Your task to perform on an android device: When is my next meeting? Image 0: 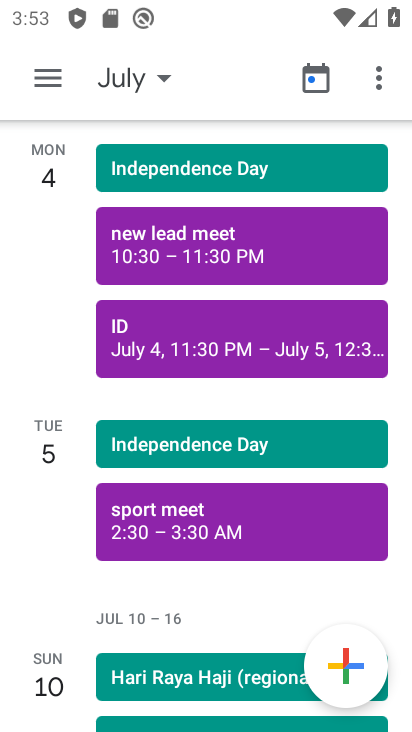
Step 0: press home button
Your task to perform on an android device: When is my next meeting? Image 1: 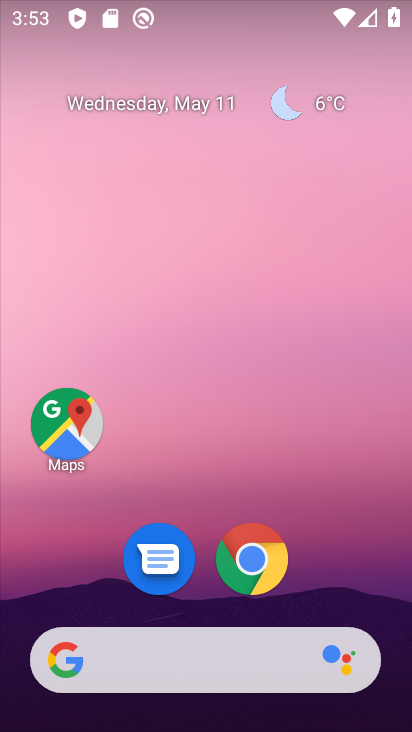
Step 1: drag from (335, 589) to (401, 178)
Your task to perform on an android device: When is my next meeting? Image 2: 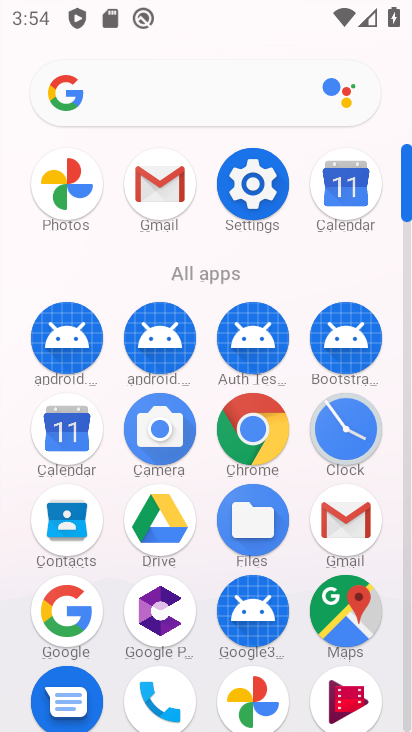
Step 2: click (334, 200)
Your task to perform on an android device: When is my next meeting? Image 3: 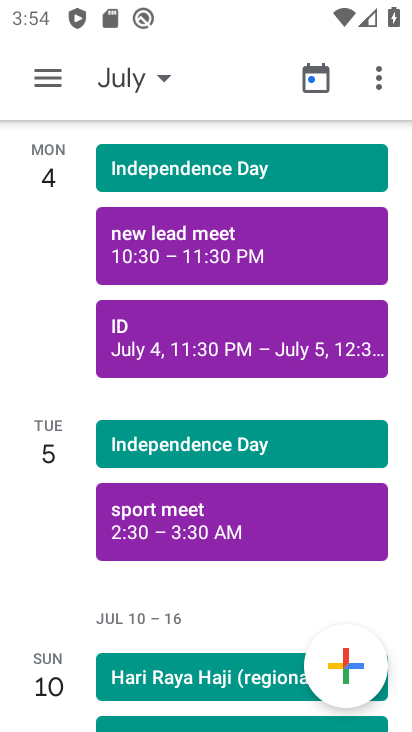
Step 3: click (162, 85)
Your task to perform on an android device: When is my next meeting? Image 4: 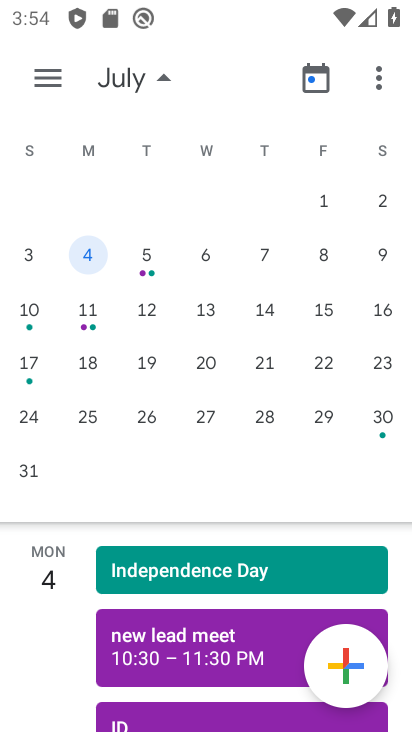
Step 4: click (154, 265)
Your task to perform on an android device: When is my next meeting? Image 5: 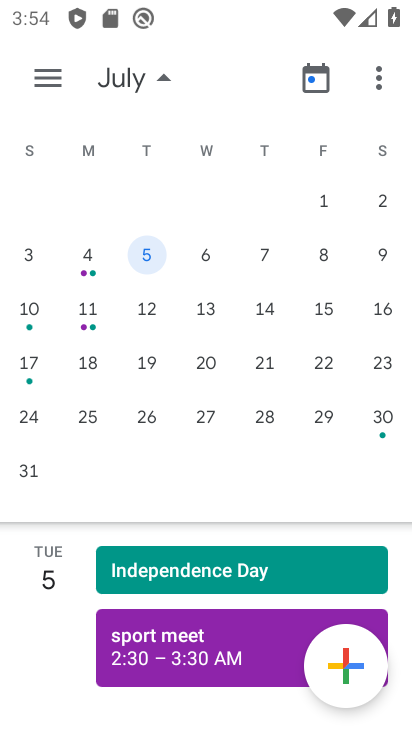
Step 5: task complete